Your task to perform on an android device: Open the phone app and click the voicemail tab. Image 0: 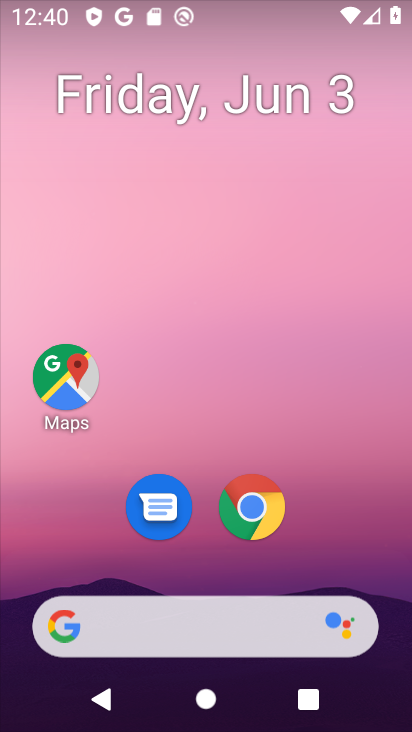
Step 0: drag from (358, 541) to (334, 167)
Your task to perform on an android device: Open the phone app and click the voicemail tab. Image 1: 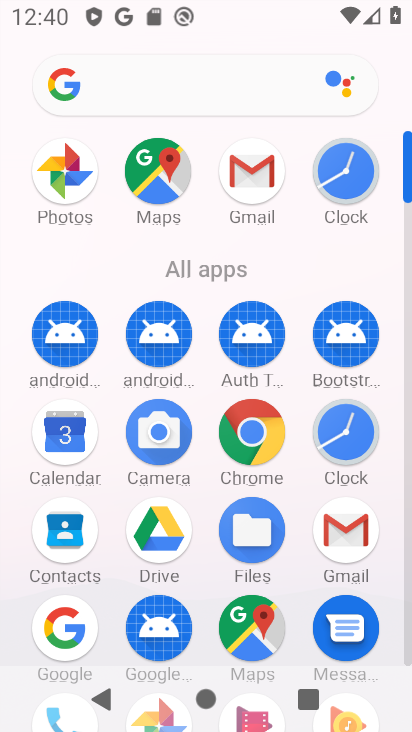
Step 1: drag from (376, 535) to (337, 223)
Your task to perform on an android device: Open the phone app and click the voicemail tab. Image 2: 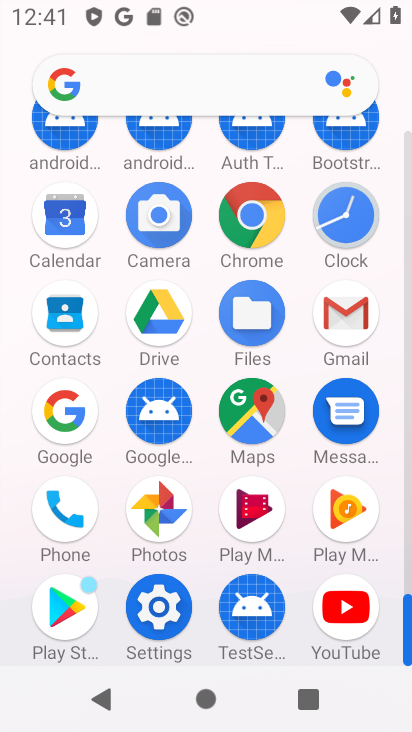
Step 2: click (82, 525)
Your task to perform on an android device: Open the phone app and click the voicemail tab. Image 3: 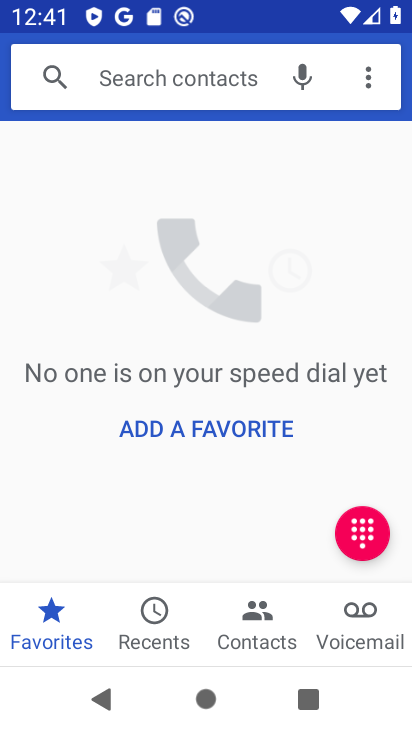
Step 3: click (393, 634)
Your task to perform on an android device: Open the phone app and click the voicemail tab. Image 4: 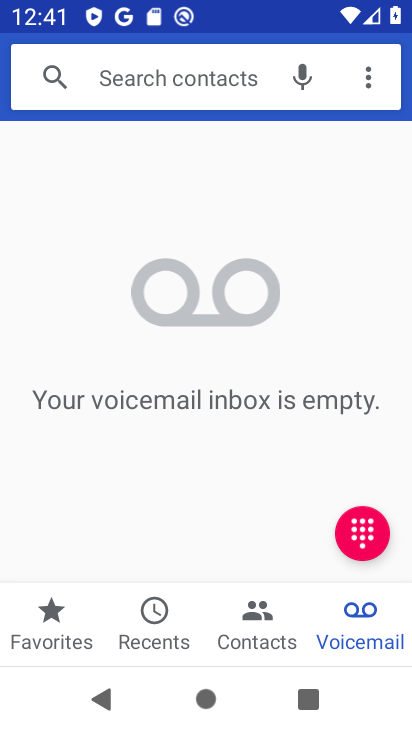
Step 4: task complete